Your task to perform on an android device: Check the news Image 0: 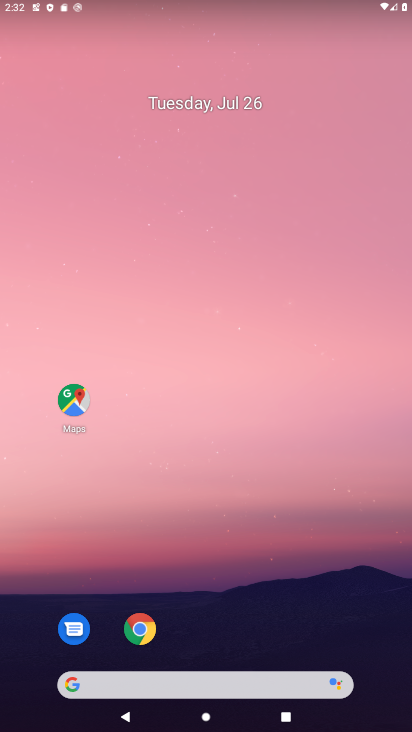
Step 0: drag from (230, 633) to (229, 188)
Your task to perform on an android device: Check the news Image 1: 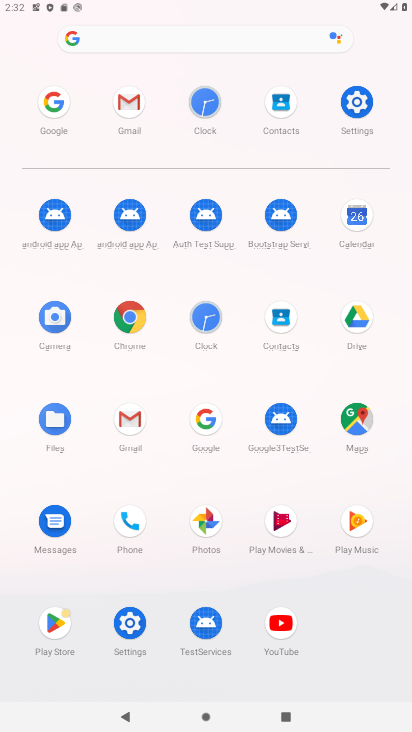
Step 1: click (220, 438)
Your task to perform on an android device: Check the news Image 2: 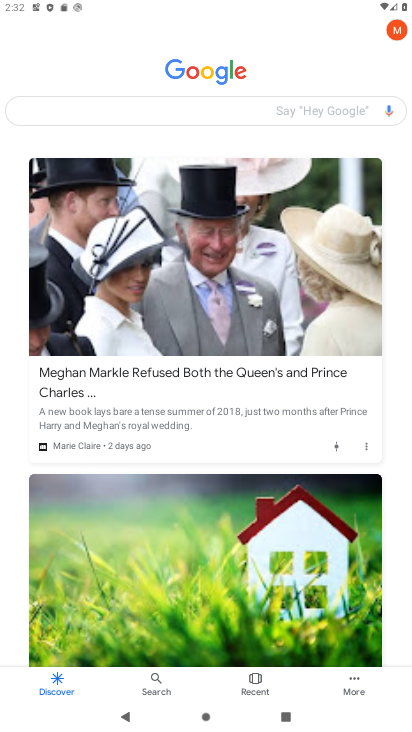
Step 2: click (124, 119)
Your task to perform on an android device: Check the news Image 3: 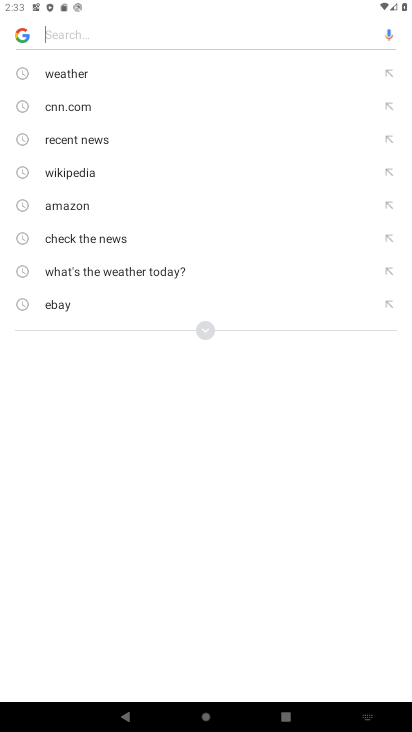
Step 3: type "news"
Your task to perform on an android device: Check the news Image 4: 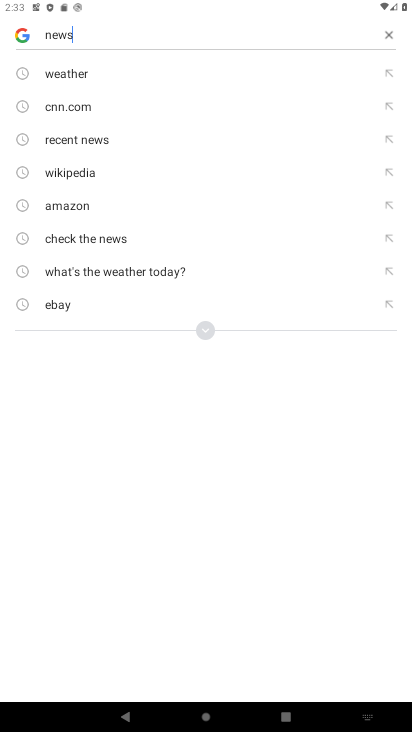
Step 4: type ""
Your task to perform on an android device: Check the news Image 5: 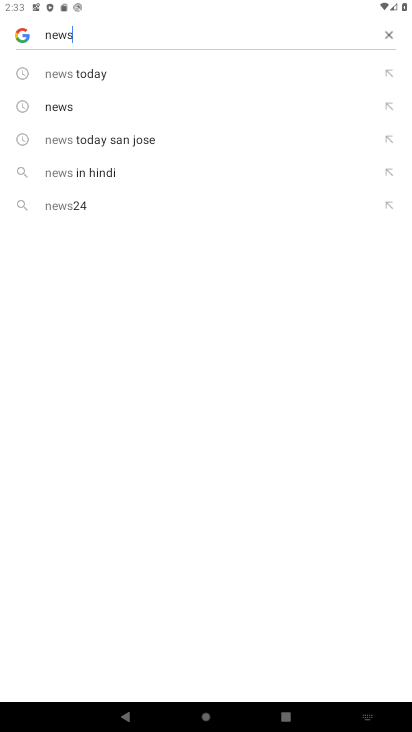
Step 5: click (88, 112)
Your task to perform on an android device: Check the news Image 6: 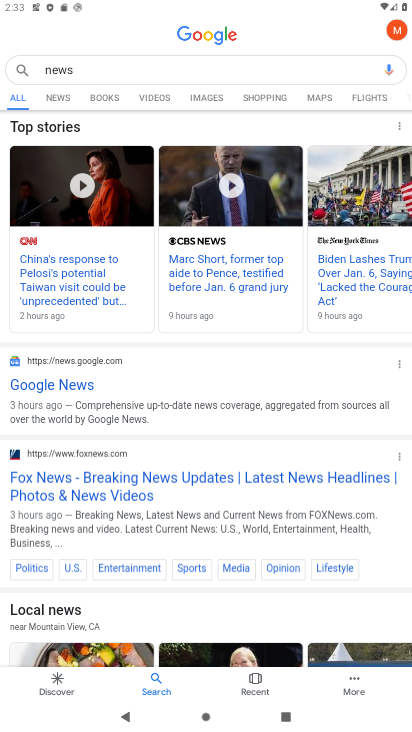
Step 6: click (71, 99)
Your task to perform on an android device: Check the news Image 7: 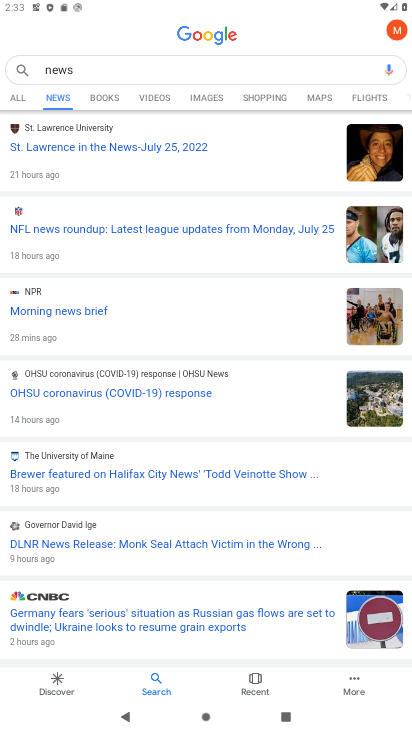
Step 7: task complete